Your task to perform on an android device: Open Chrome and go to the settings page Image 0: 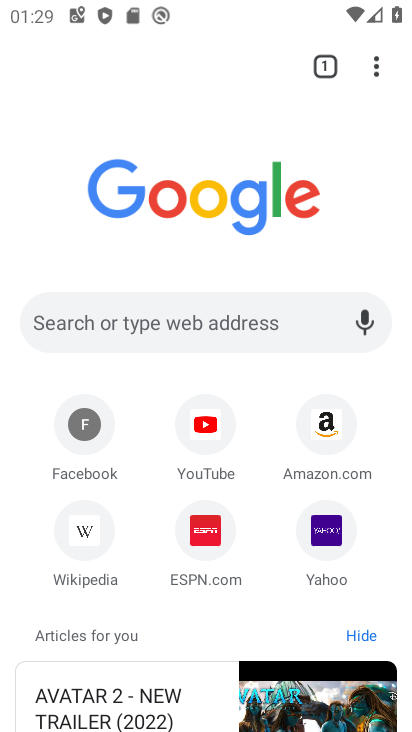
Step 0: press home button
Your task to perform on an android device: Open Chrome and go to the settings page Image 1: 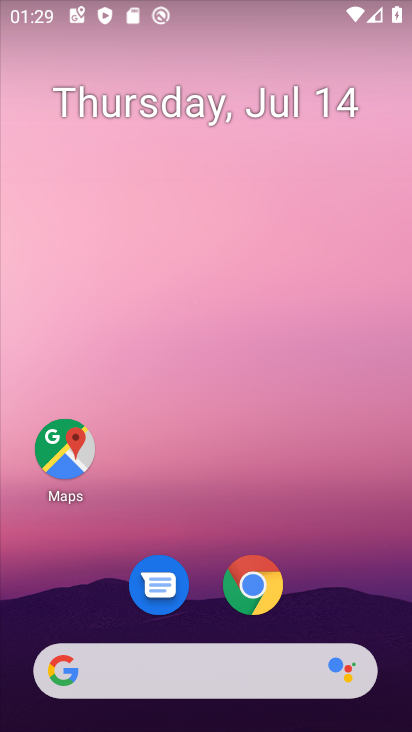
Step 1: click (267, 578)
Your task to perform on an android device: Open Chrome and go to the settings page Image 2: 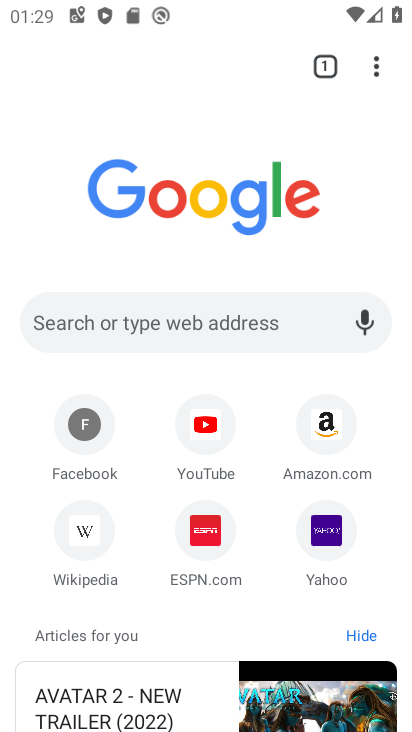
Step 2: click (379, 68)
Your task to perform on an android device: Open Chrome and go to the settings page Image 3: 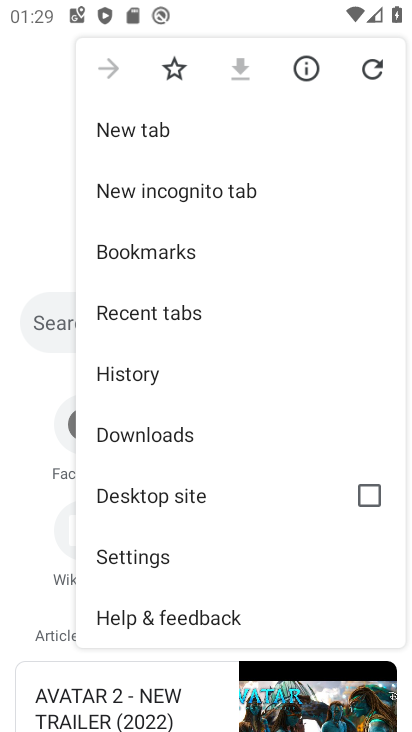
Step 3: click (155, 554)
Your task to perform on an android device: Open Chrome and go to the settings page Image 4: 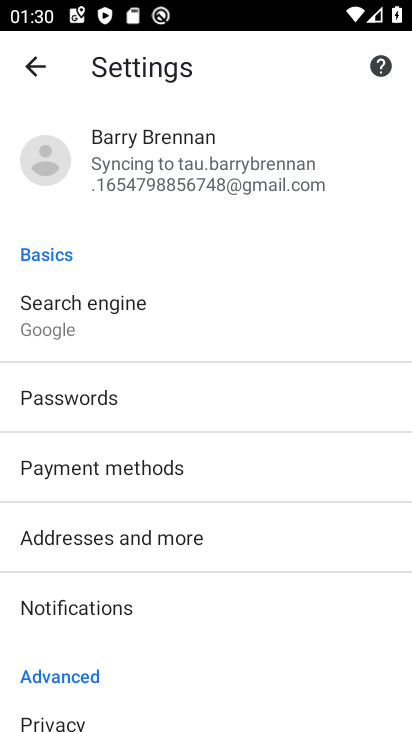
Step 4: task complete